Your task to perform on an android device: turn pop-ups on in chrome Image 0: 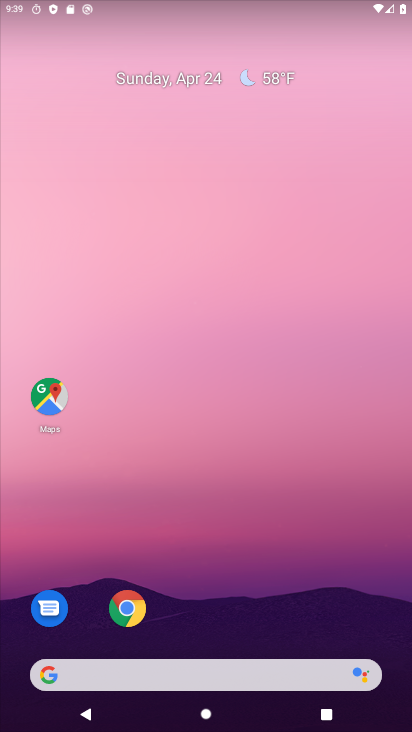
Step 0: drag from (304, 592) to (318, 62)
Your task to perform on an android device: turn pop-ups on in chrome Image 1: 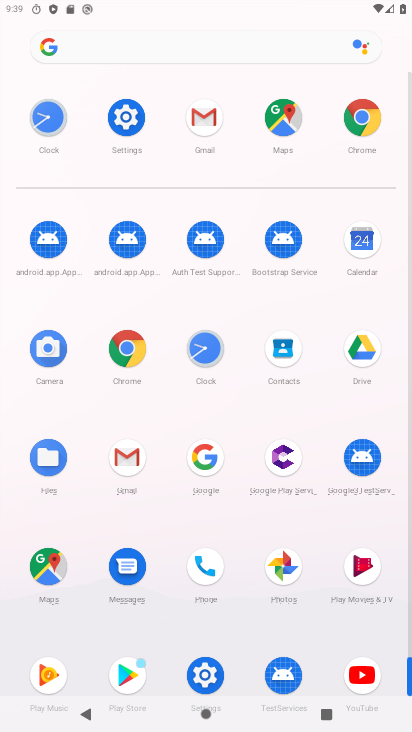
Step 1: click (366, 130)
Your task to perform on an android device: turn pop-ups on in chrome Image 2: 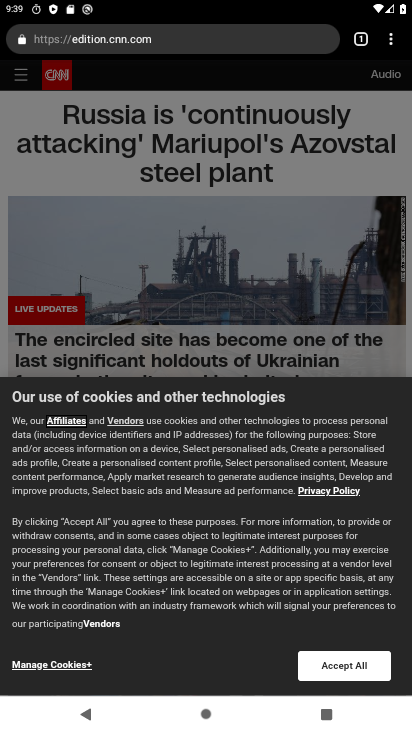
Step 2: click (391, 36)
Your task to perform on an android device: turn pop-ups on in chrome Image 3: 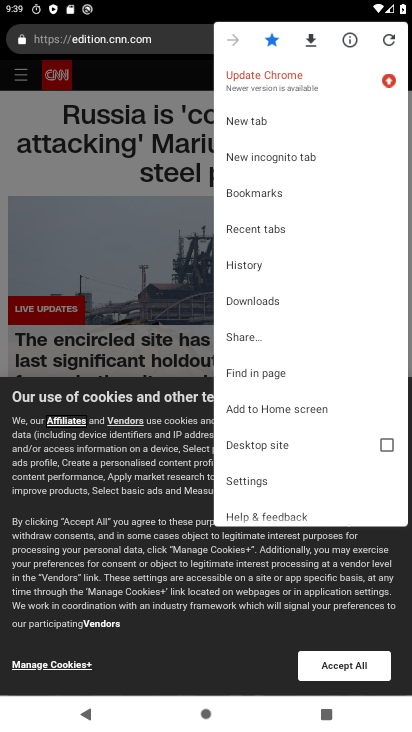
Step 3: click (272, 489)
Your task to perform on an android device: turn pop-ups on in chrome Image 4: 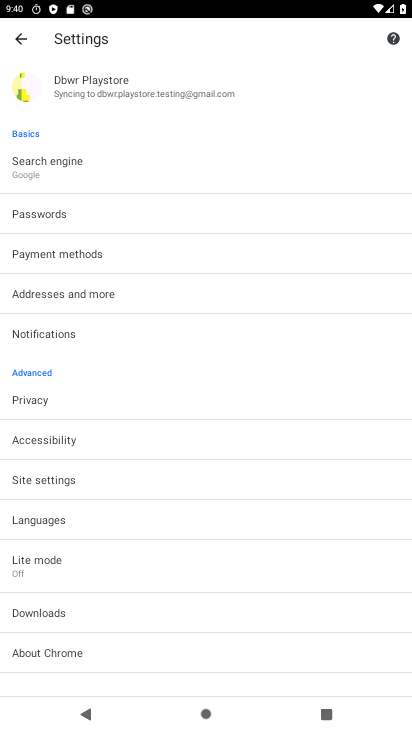
Step 4: drag from (282, 610) to (287, 397)
Your task to perform on an android device: turn pop-ups on in chrome Image 5: 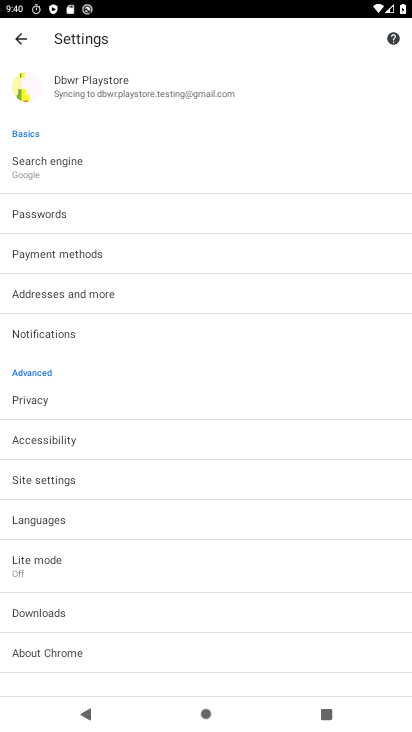
Step 5: drag from (312, 227) to (311, 423)
Your task to perform on an android device: turn pop-ups on in chrome Image 6: 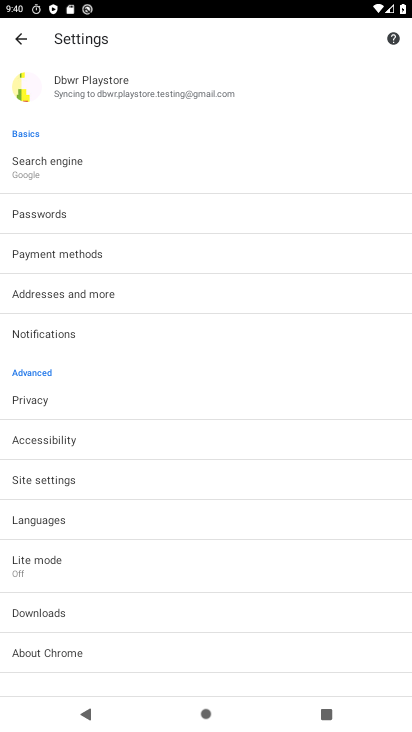
Step 6: click (242, 470)
Your task to perform on an android device: turn pop-ups on in chrome Image 7: 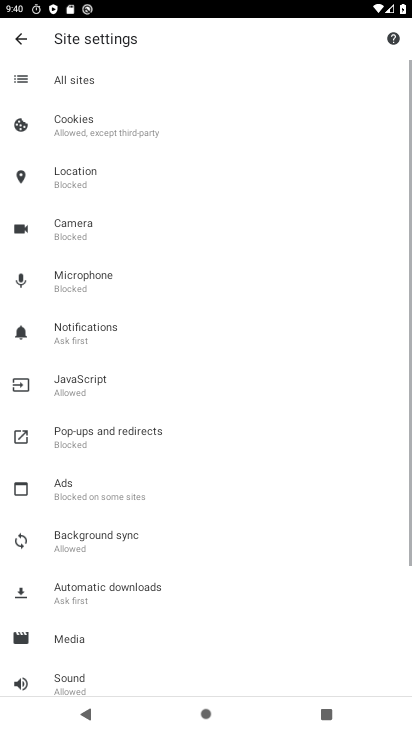
Step 7: drag from (252, 605) to (256, 467)
Your task to perform on an android device: turn pop-ups on in chrome Image 8: 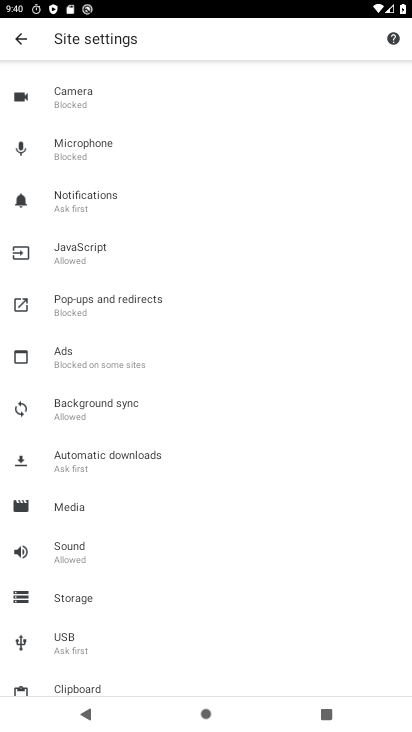
Step 8: drag from (271, 613) to (287, 462)
Your task to perform on an android device: turn pop-ups on in chrome Image 9: 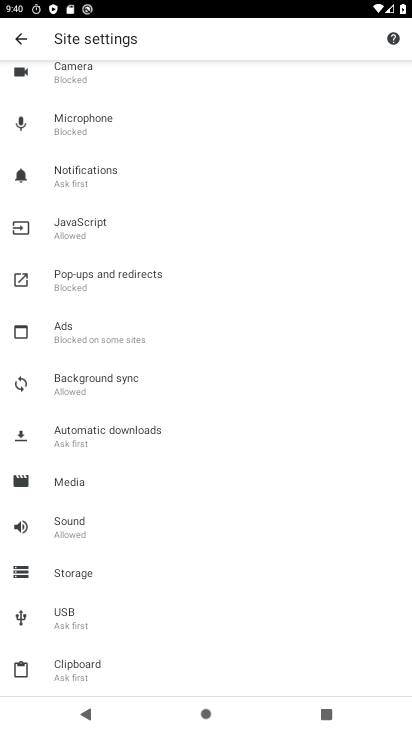
Step 9: drag from (253, 628) to (270, 471)
Your task to perform on an android device: turn pop-ups on in chrome Image 10: 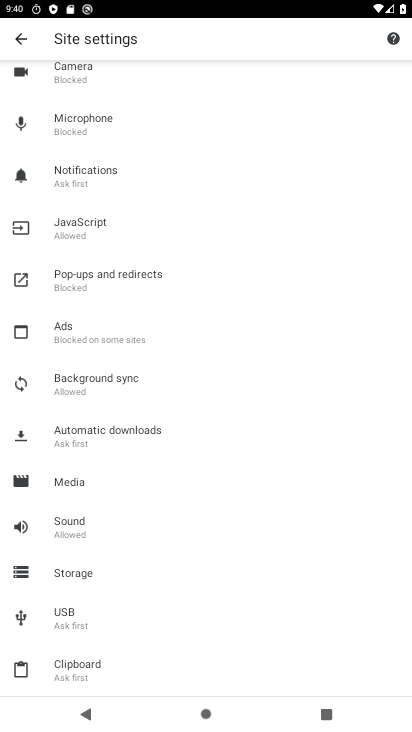
Step 10: drag from (285, 289) to (281, 434)
Your task to perform on an android device: turn pop-ups on in chrome Image 11: 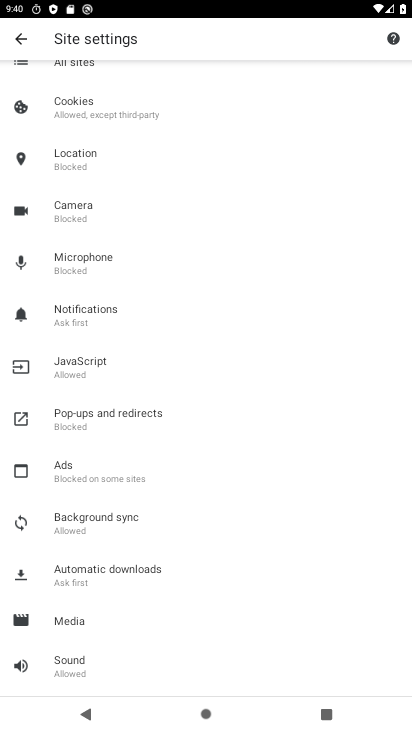
Step 11: drag from (287, 256) to (283, 406)
Your task to perform on an android device: turn pop-ups on in chrome Image 12: 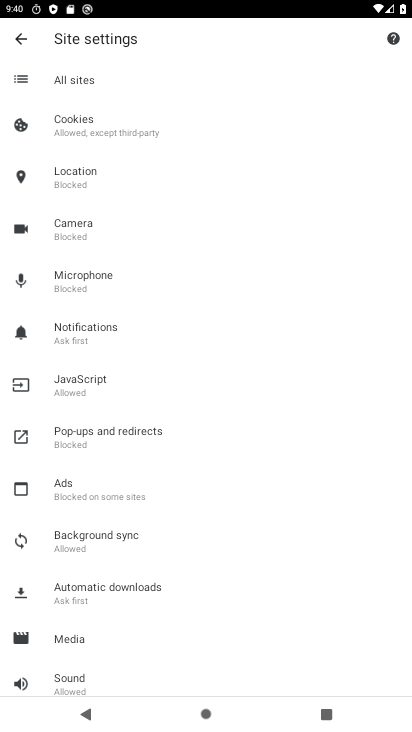
Step 12: drag from (286, 227) to (283, 414)
Your task to perform on an android device: turn pop-ups on in chrome Image 13: 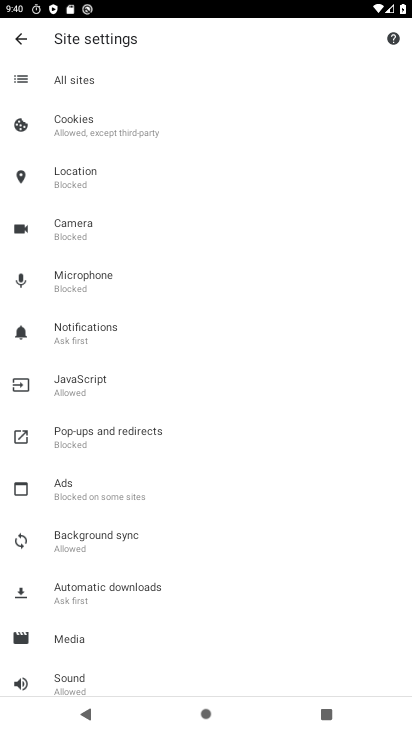
Step 13: drag from (263, 575) to (280, 381)
Your task to perform on an android device: turn pop-ups on in chrome Image 14: 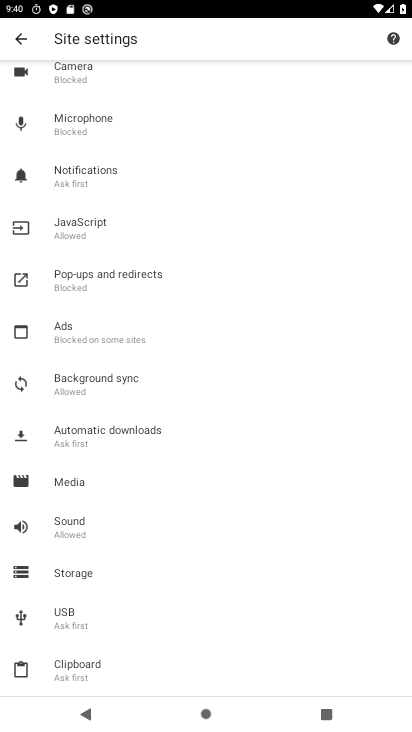
Step 14: drag from (271, 601) to (281, 401)
Your task to perform on an android device: turn pop-ups on in chrome Image 15: 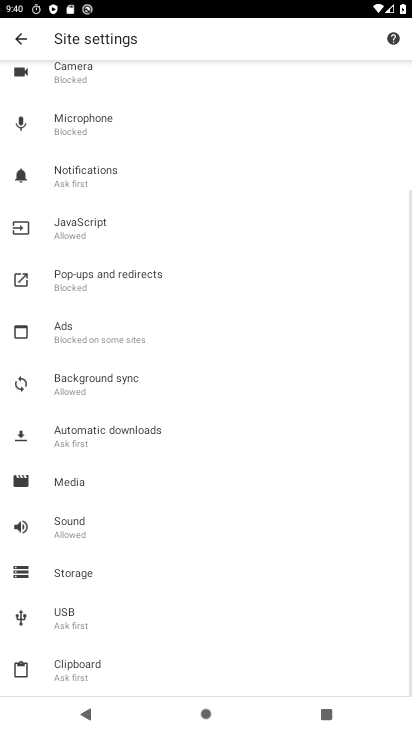
Step 15: drag from (281, 268) to (279, 466)
Your task to perform on an android device: turn pop-ups on in chrome Image 16: 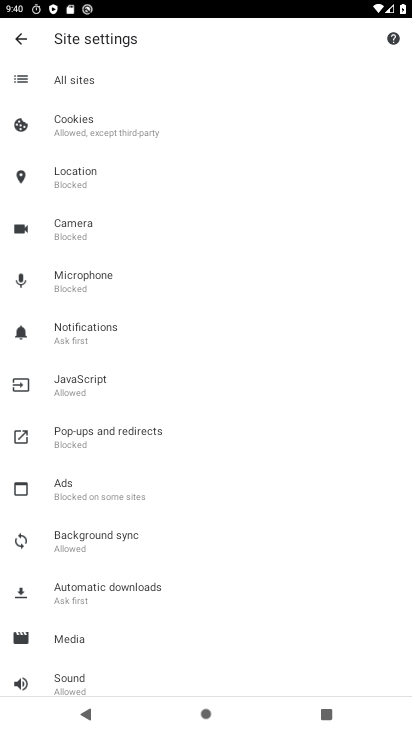
Step 16: drag from (262, 275) to (264, 465)
Your task to perform on an android device: turn pop-ups on in chrome Image 17: 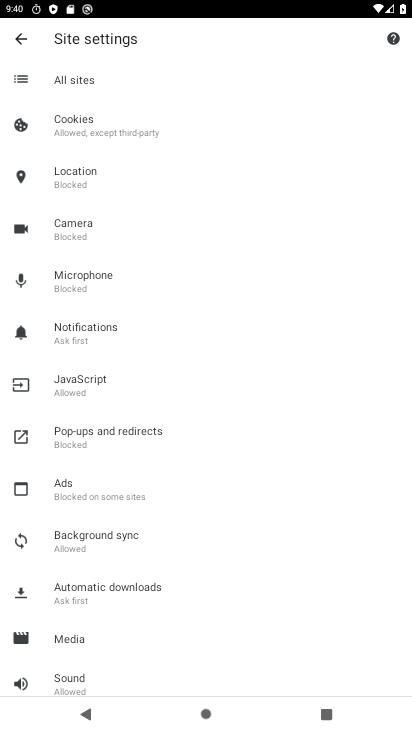
Step 17: click (132, 433)
Your task to perform on an android device: turn pop-ups on in chrome Image 18: 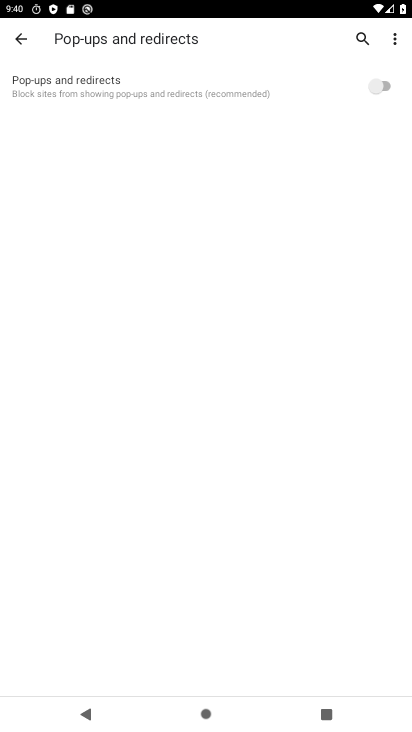
Step 18: click (370, 93)
Your task to perform on an android device: turn pop-ups on in chrome Image 19: 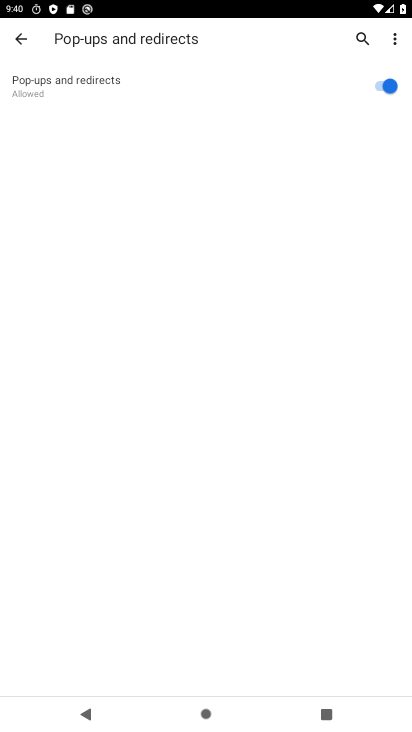
Step 19: task complete